Your task to perform on an android device: Open Google Maps Image 0: 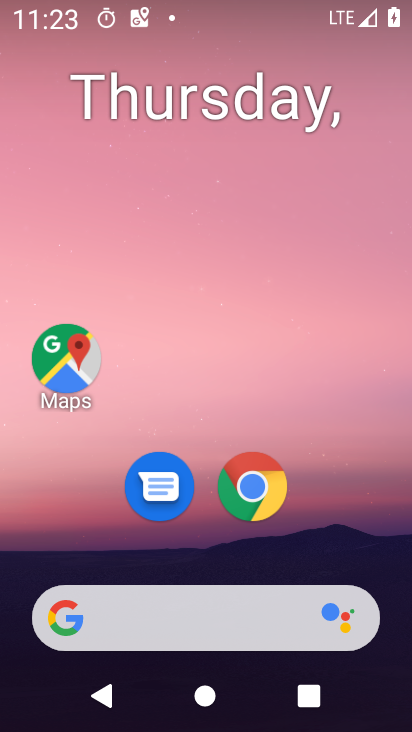
Step 0: click (48, 366)
Your task to perform on an android device: Open Google Maps Image 1: 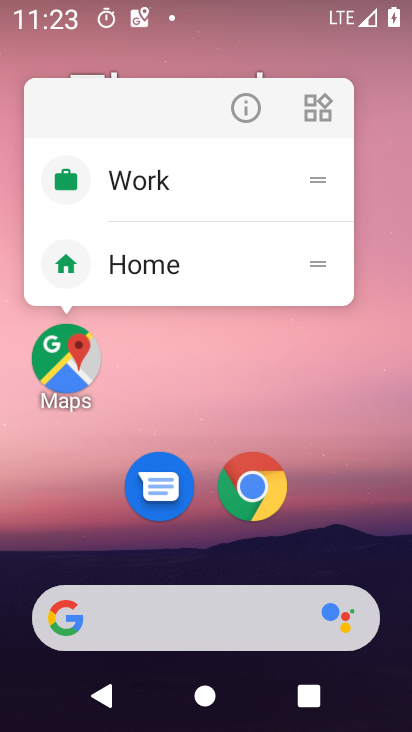
Step 1: click (75, 360)
Your task to perform on an android device: Open Google Maps Image 2: 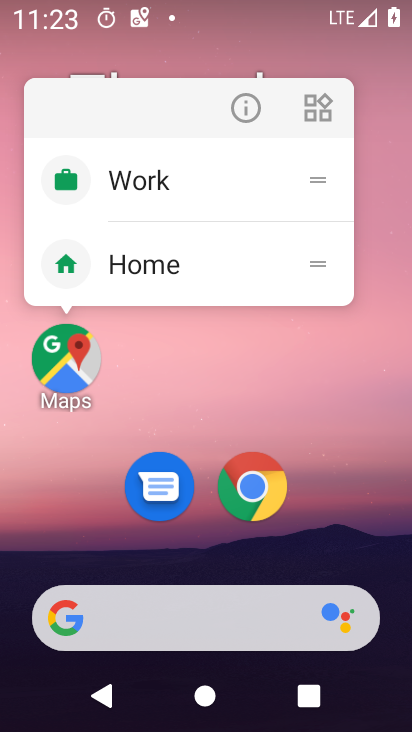
Step 2: click (77, 387)
Your task to perform on an android device: Open Google Maps Image 3: 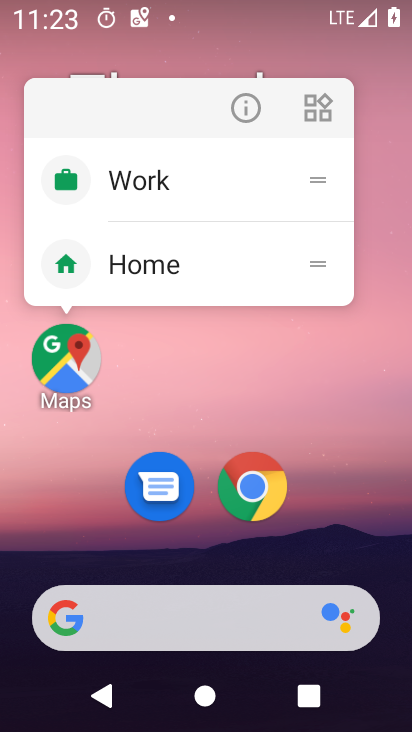
Step 3: click (79, 371)
Your task to perform on an android device: Open Google Maps Image 4: 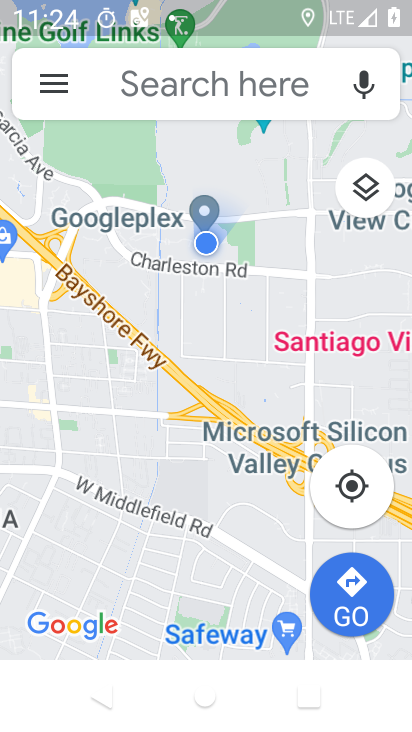
Step 4: task complete